Your task to perform on an android device: change your default location settings in chrome Image 0: 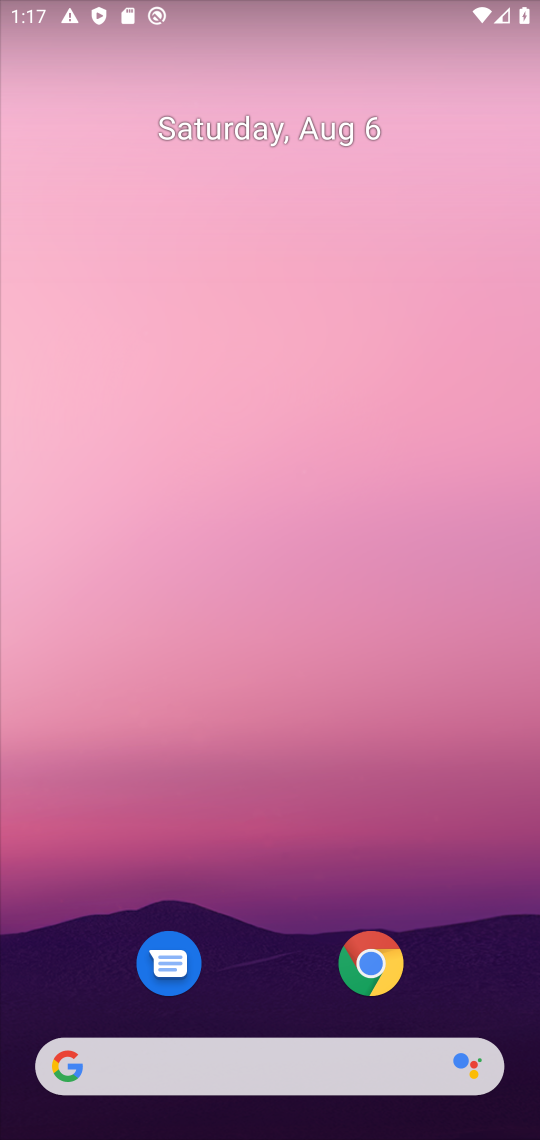
Step 0: drag from (186, 793) to (317, 247)
Your task to perform on an android device: change your default location settings in chrome Image 1: 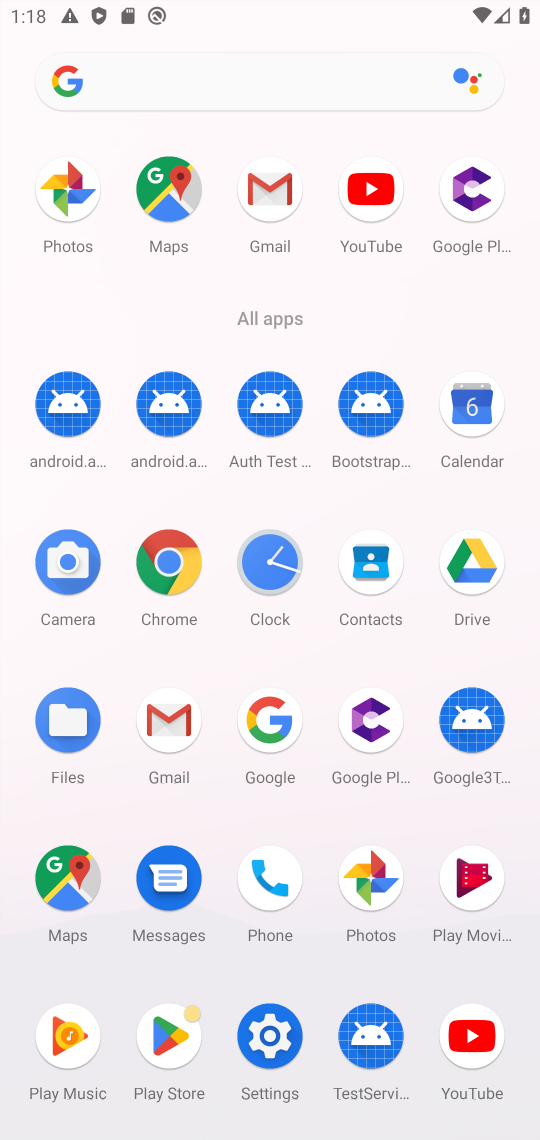
Step 1: click (147, 569)
Your task to perform on an android device: change your default location settings in chrome Image 2: 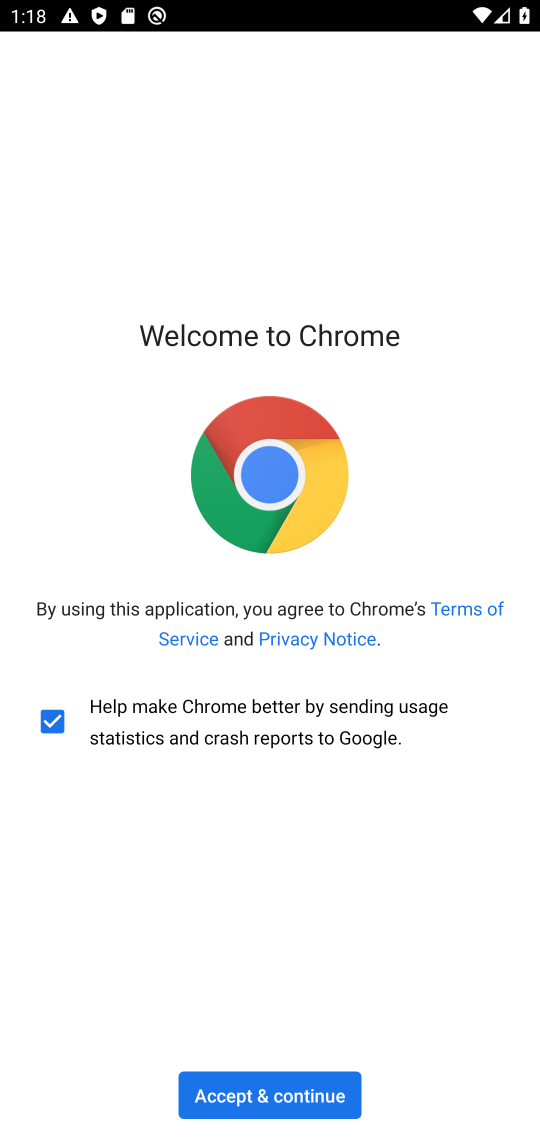
Step 2: click (250, 1102)
Your task to perform on an android device: change your default location settings in chrome Image 3: 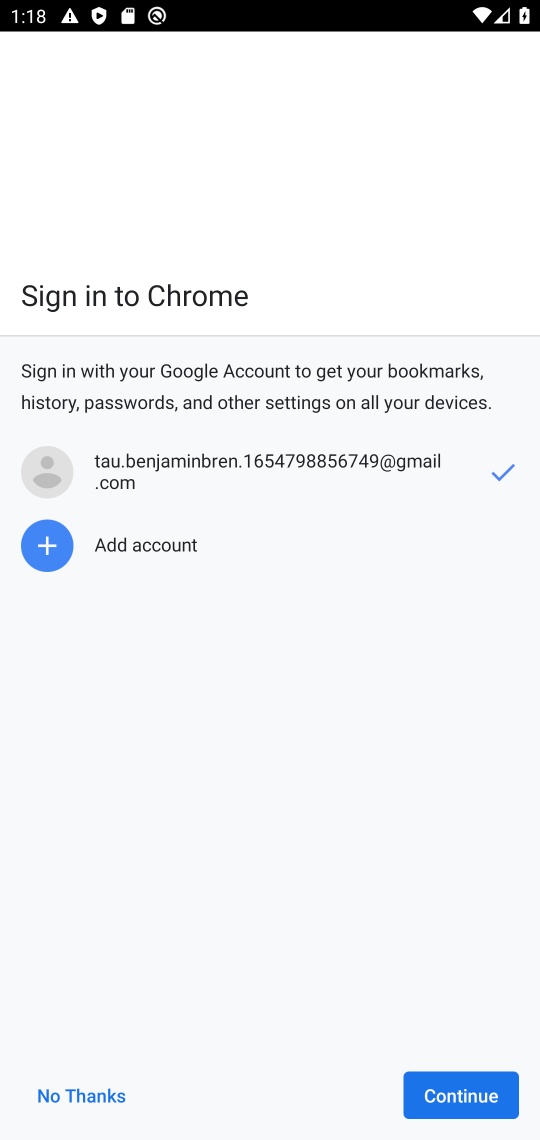
Step 3: click (443, 1105)
Your task to perform on an android device: change your default location settings in chrome Image 4: 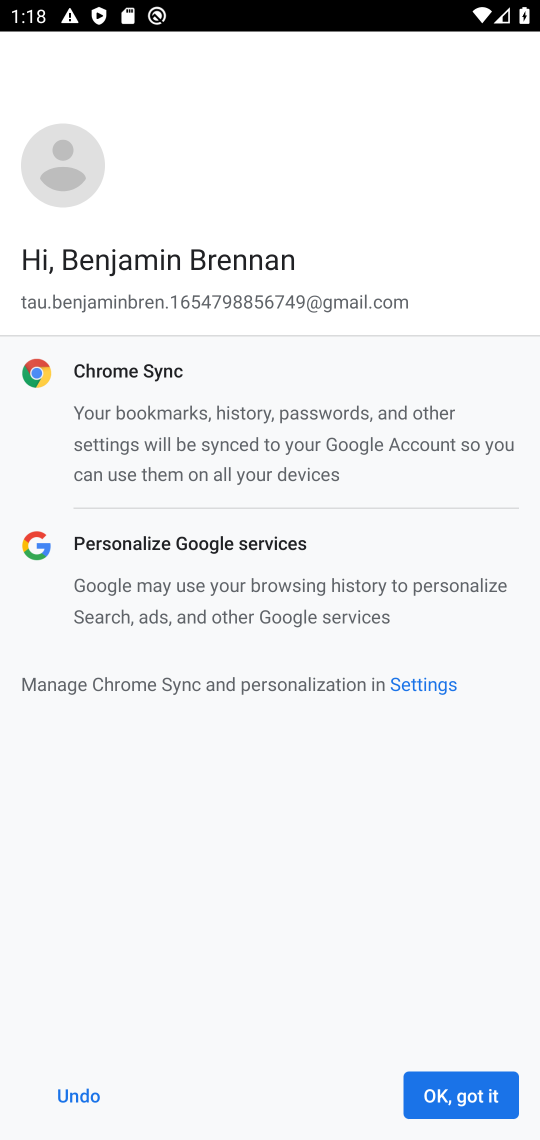
Step 4: click (465, 1096)
Your task to perform on an android device: change your default location settings in chrome Image 5: 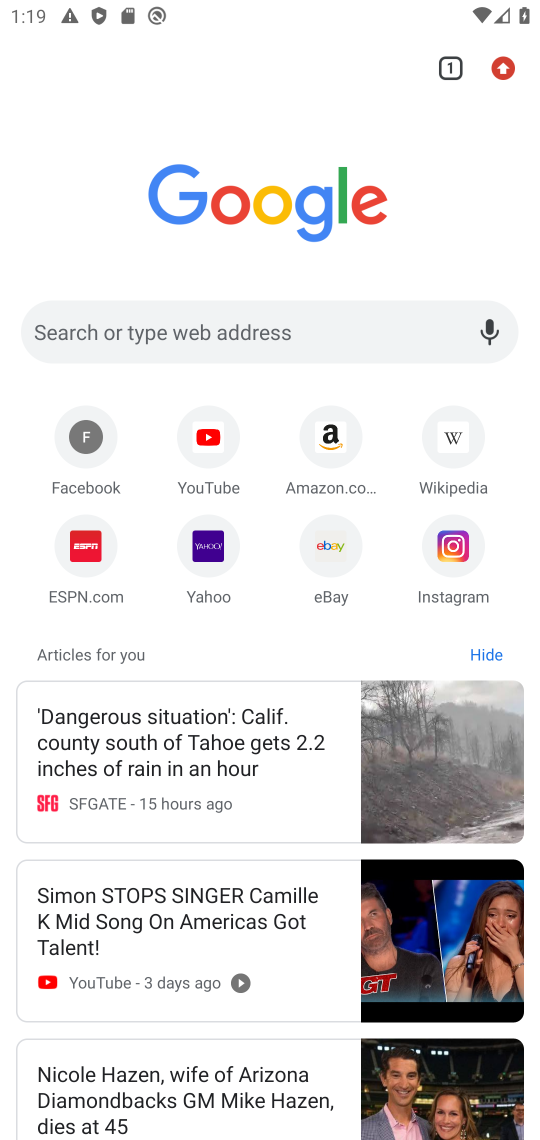
Step 5: click (490, 64)
Your task to perform on an android device: change your default location settings in chrome Image 6: 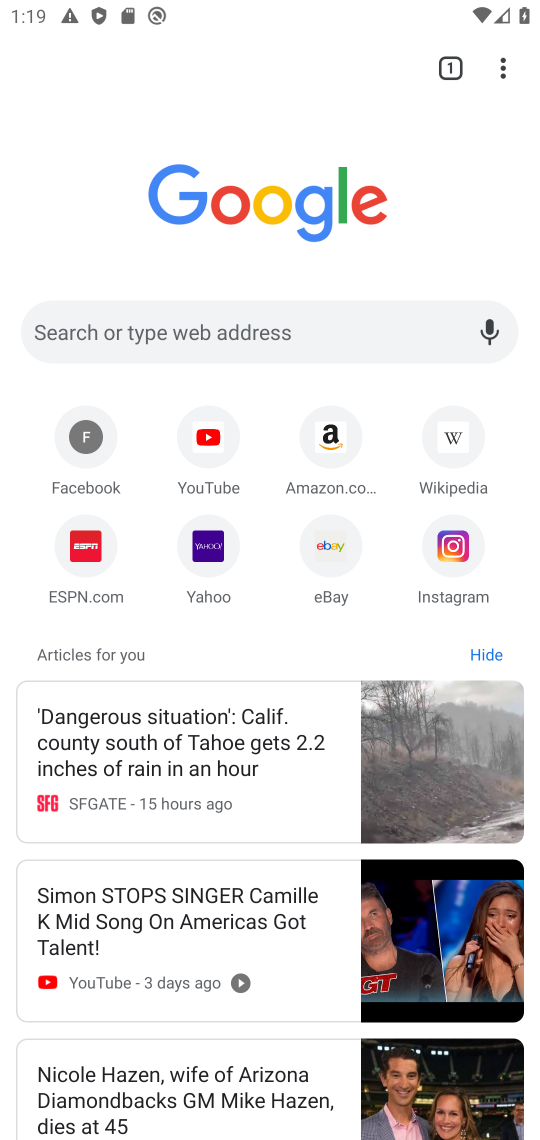
Step 6: click (513, 67)
Your task to perform on an android device: change your default location settings in chrome Image 7: 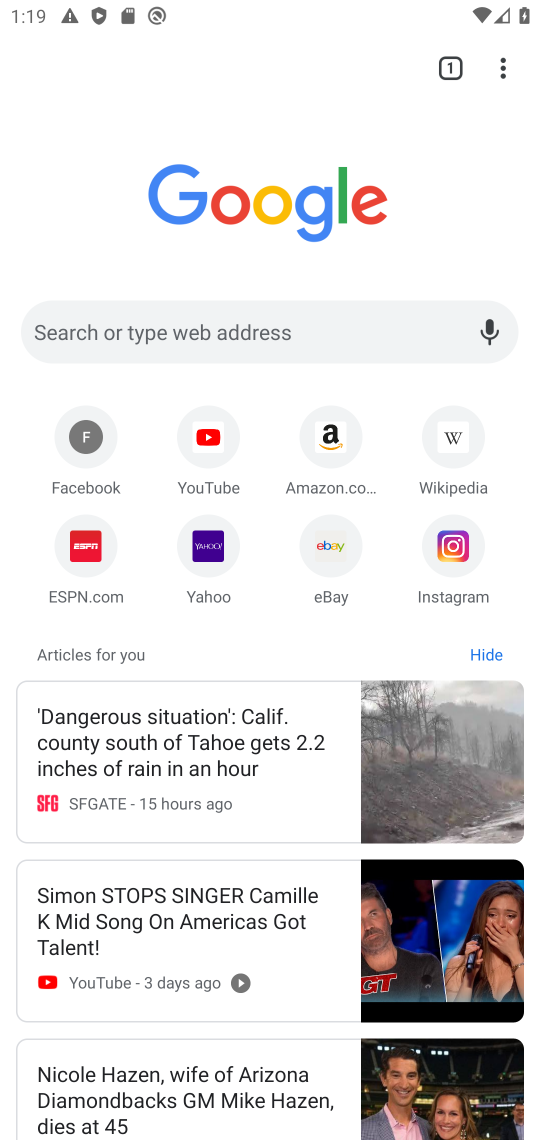
Step 7: click (502, 72)
Your task to perform on an android device: change your default location settings in chrome Image 8: 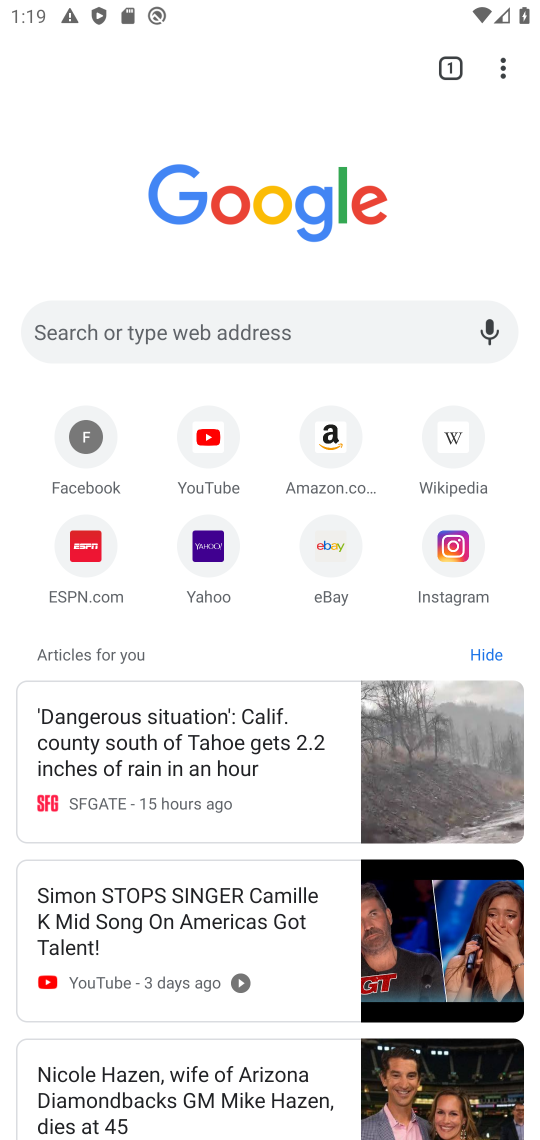
Step 8: click (510, 68)
Your task to perform on an android device: change your default location settings in chrome Image 9: 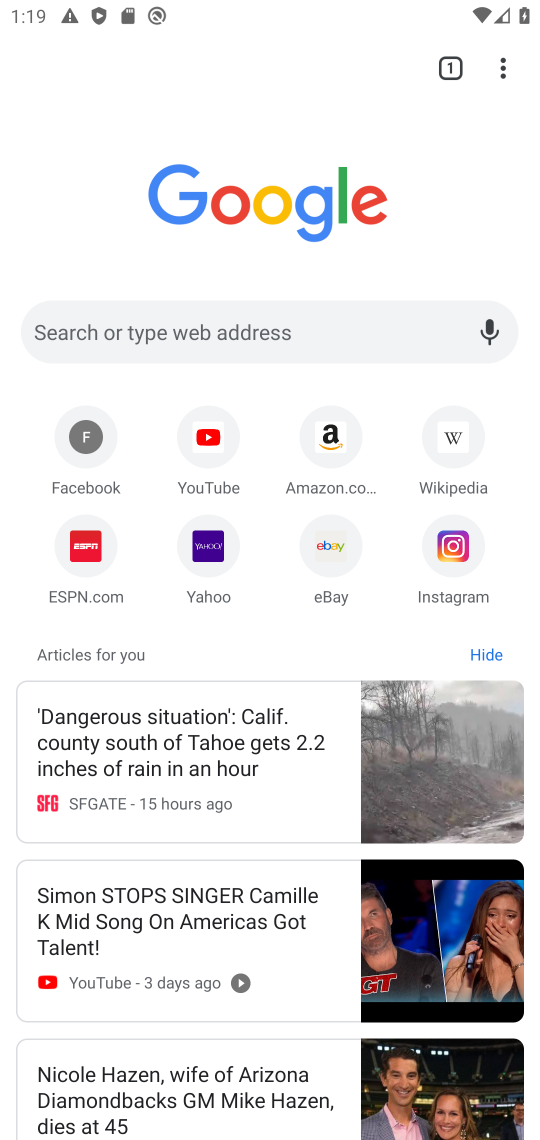
Step 9: click (489, 48)
Your task to perform on an android device: change your default location settings in chrome Image 10: 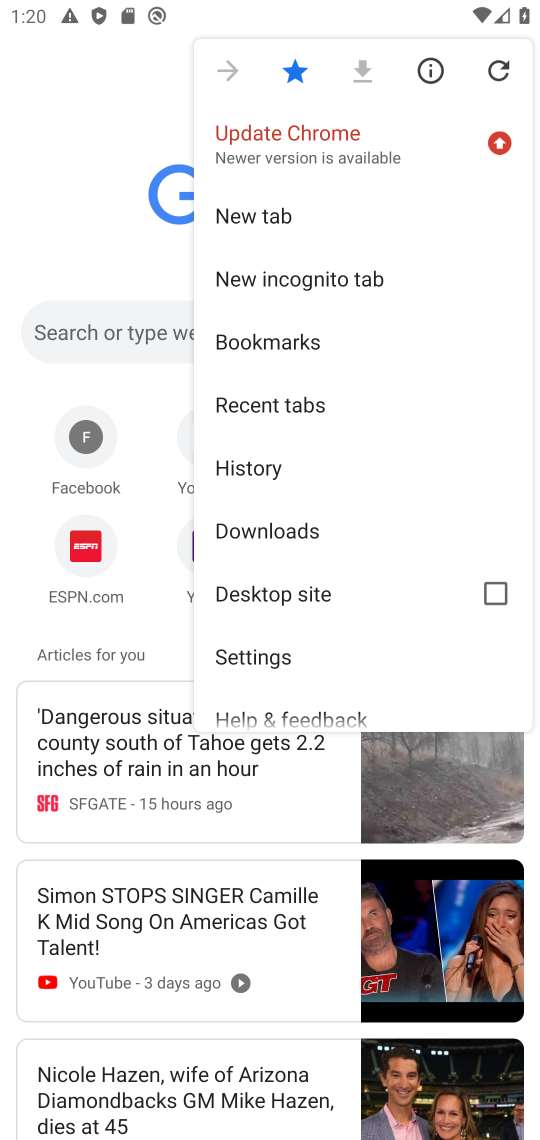
Step 10: click (316, 646)
Your task to perform on an android device: change your default location settings in chrome Image 11: 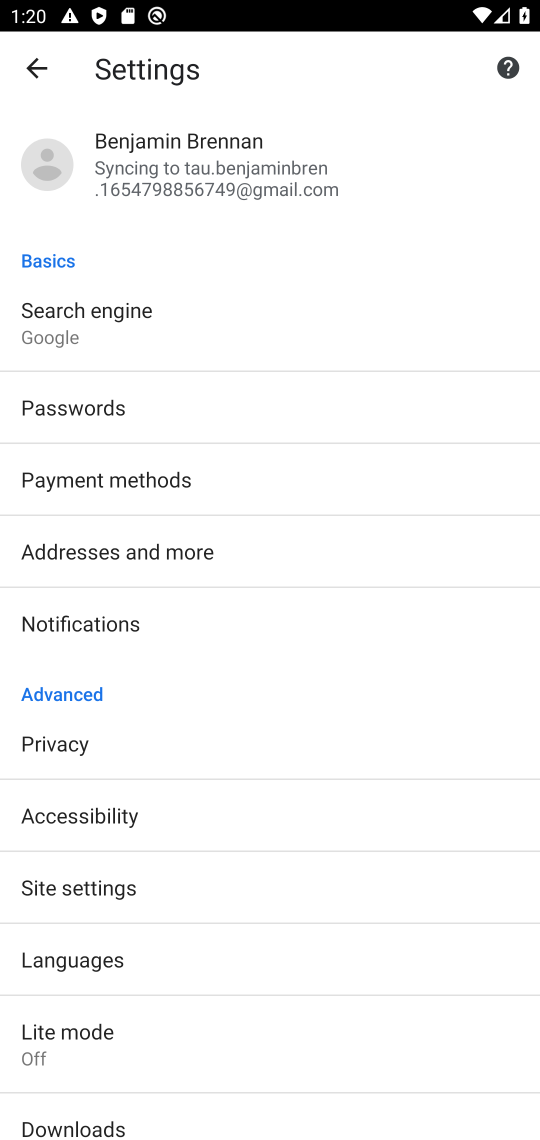
Step 11: click (120, 881)
Your task to perform on an android device: change your default location settings in chrome Image 12: 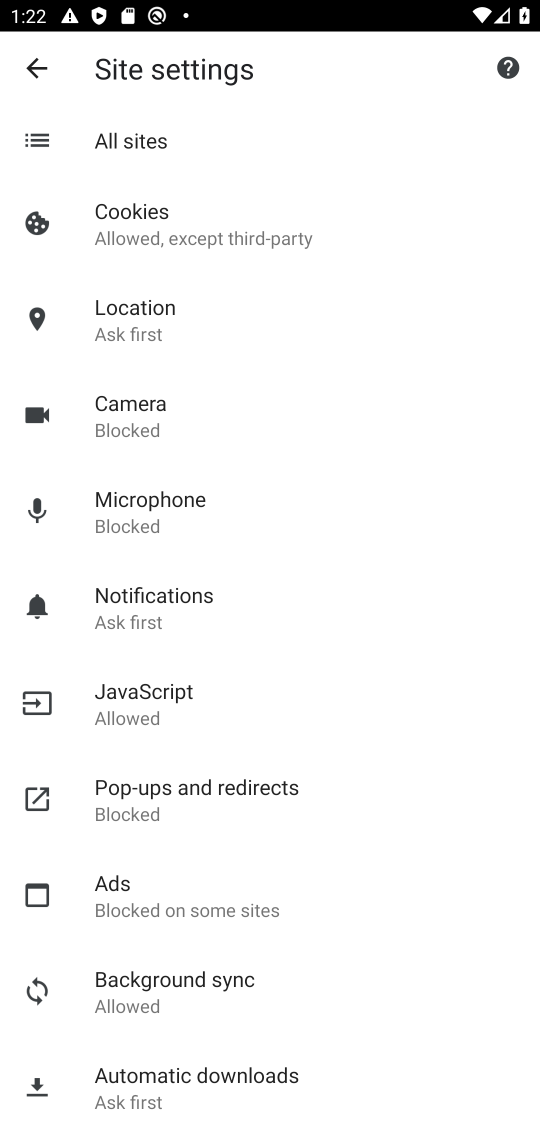
Step 12: click (215, 309)
Your task to perform on an android device: change your default location settings in chrome Image 13: 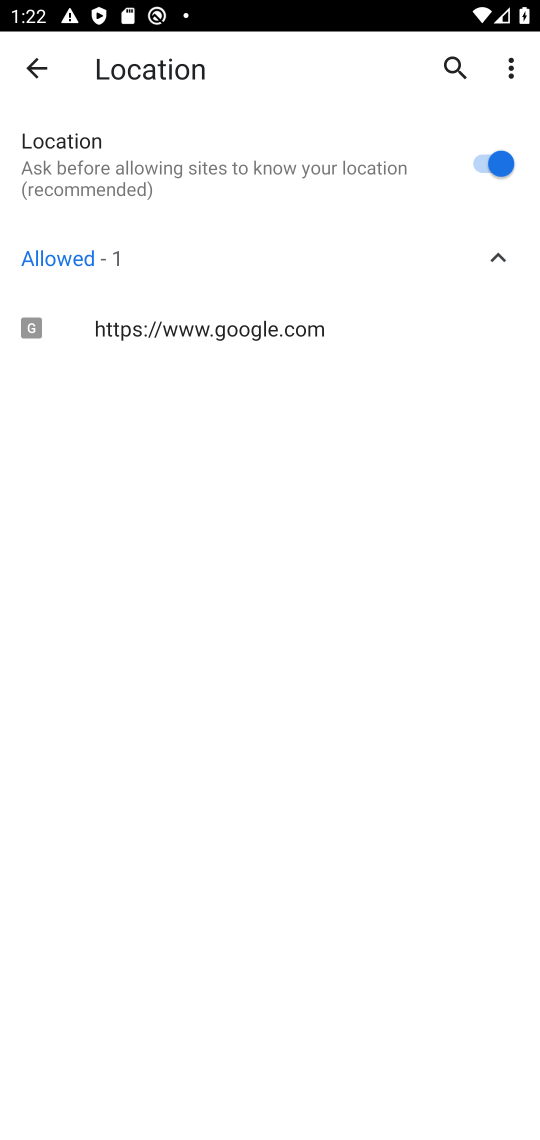
Step 13: click (492, 160)
Your task to perform on an android device: change your default location settings in chrome Image 14: 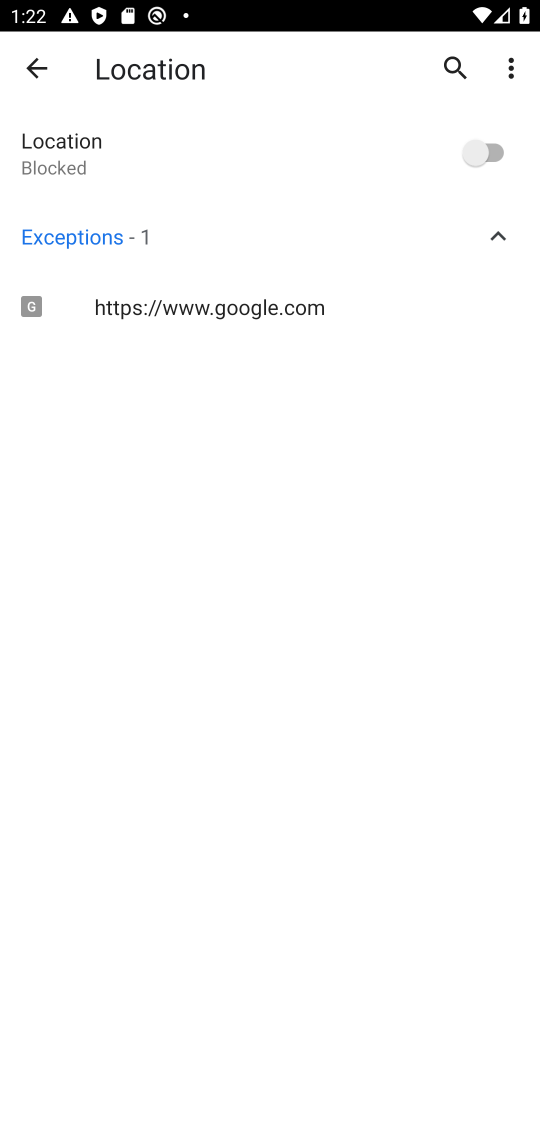
Step 14: task complete